Your task to perform on an android device: Open settings on Google Maps Image 0: 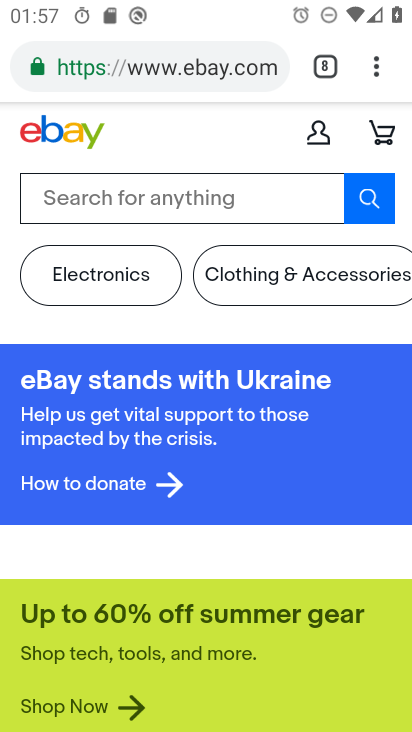
Step 0: press home button
Your task to perform on an android device: Open settings on Google Maps Image 1: 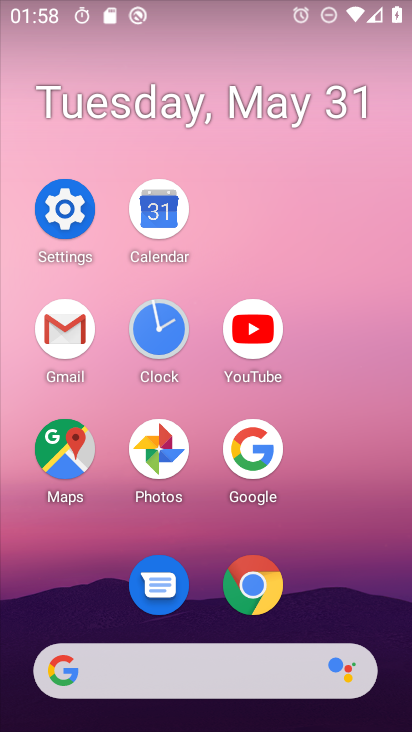
Step 1: click (79, 448)
Your task to perform on an android device: Open settings on Google Maps Image 2: 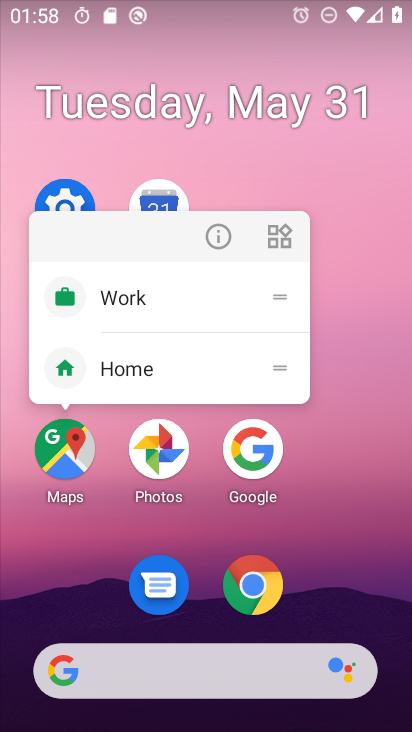
Step 2: click (83, 445)
Your task to perform on an android device: Open settings on Google Maps Image 3: 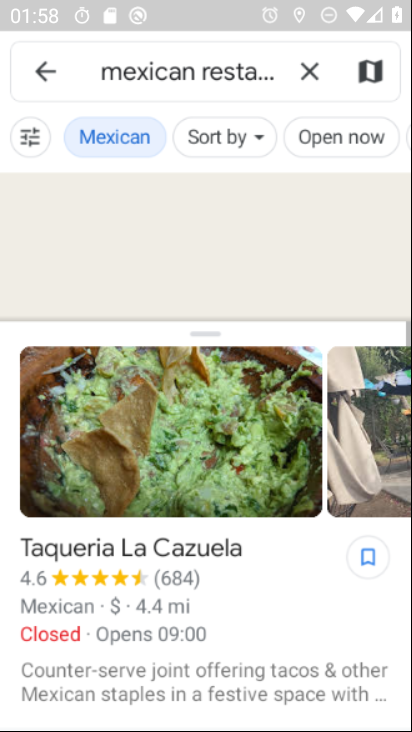
Step 3: click (49, 65)
Your task to perform on an android device: Open settings on Google Maps Image 4: 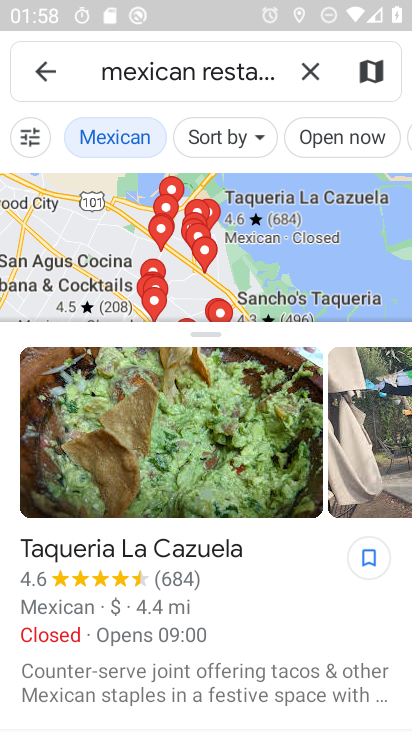
Step 4: click (47, 77)
Your task to perform on an android device: Open settings on Google Maps Image 5: 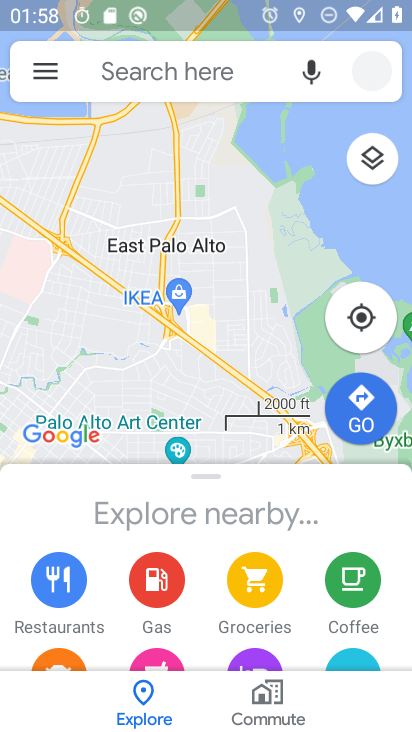
Step 5: click (47, 77)
Your task to perform on an android device: Open settings on Google Maps Image 6: 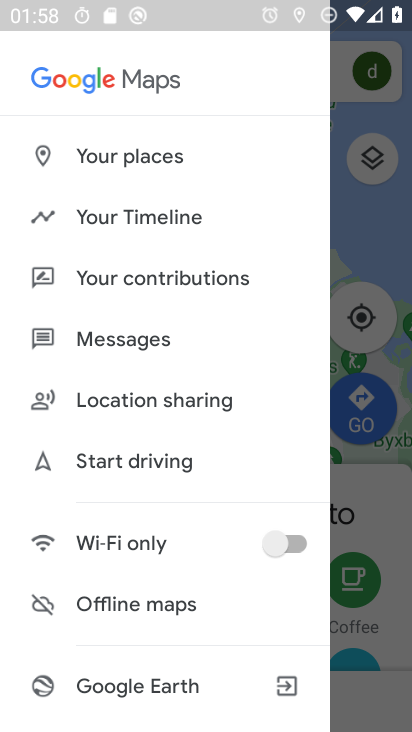
Step 6: drag from (195, 549) to (211, 223)
Your task to perform on an android device: Open settings on Google Maps Image 7: 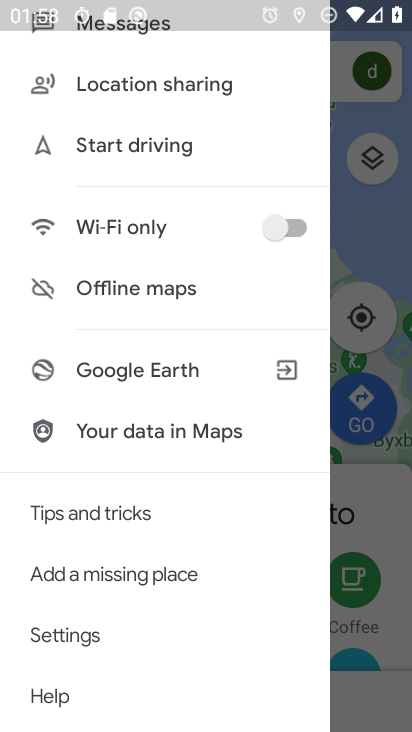
Step 7: click (135, 628)
Your task to perform on an android device: Open settings on Google Maps Image 8: 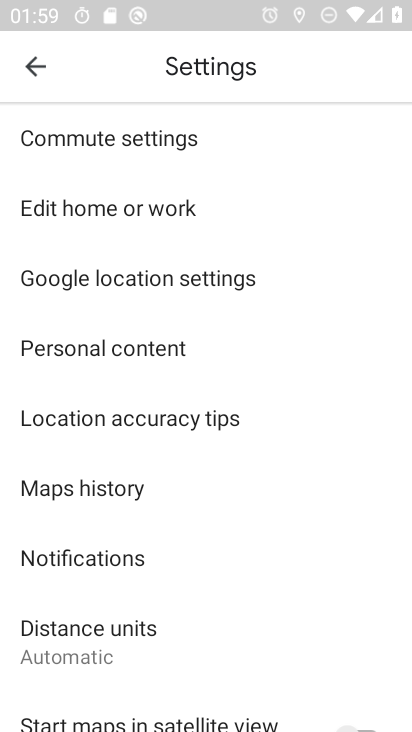
Step 8: task complete